Your task to perform on an android device: Open location settings Image 0: 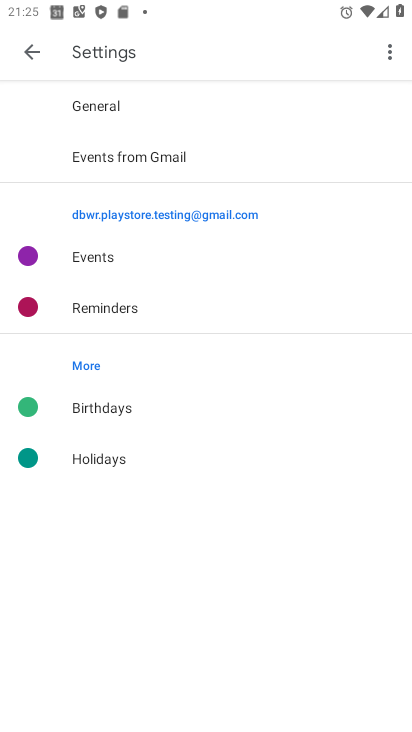
Step 0: press home button
Your task to perform on an android device: Open location settings Image 1: 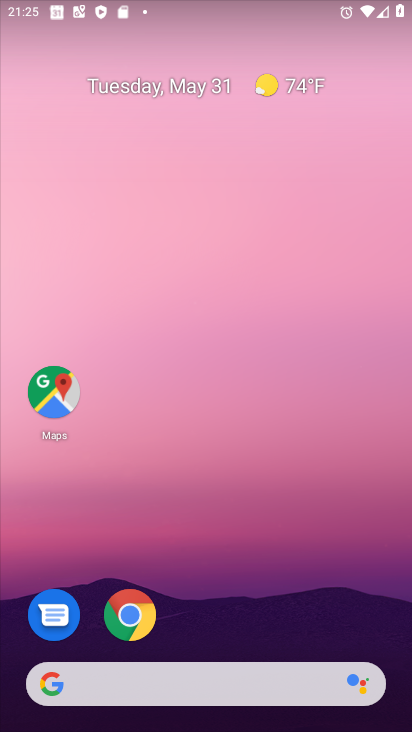
Step 1: drag from (218, 628) to (228, 248)
Your task to perform on an android device: Open location settings Image 2: 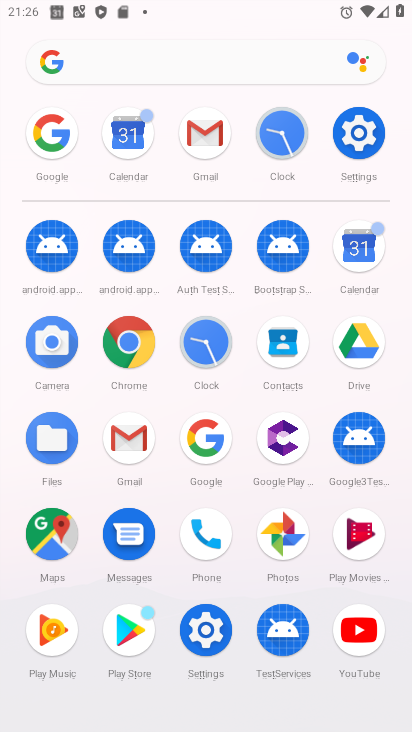
Step 2: click (342, 110)
Your task to perform on an android device: Open location settings Image 3: 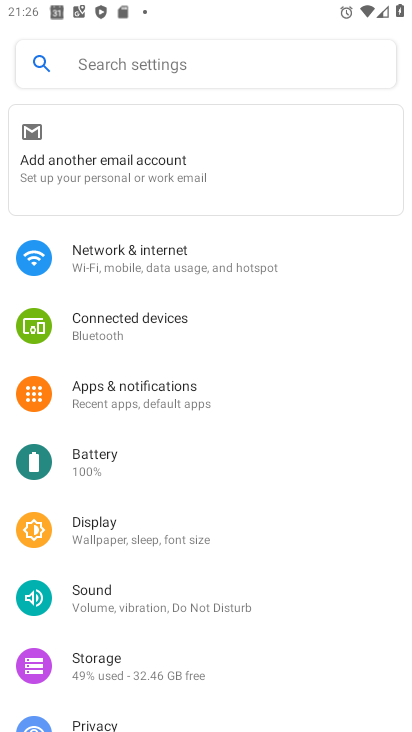
Step 3: drag from (205, 705) to (234, 296)
Your task to perform on an android device: Open location settings Image 4: 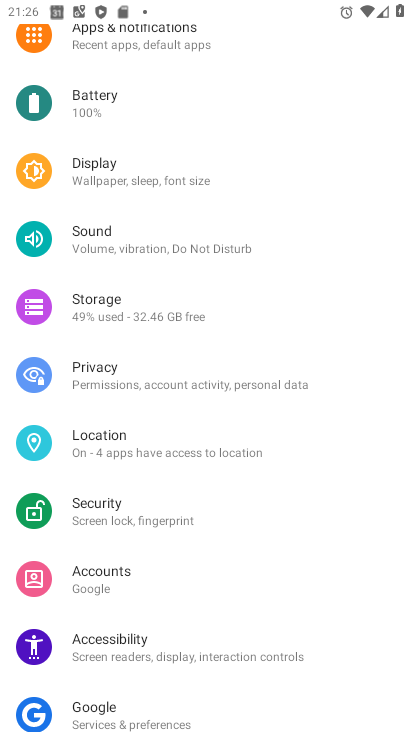
Step 4: drag from (213, 570) to (247, 387)
Your task to perform on an android device: Open location settings Image 5: 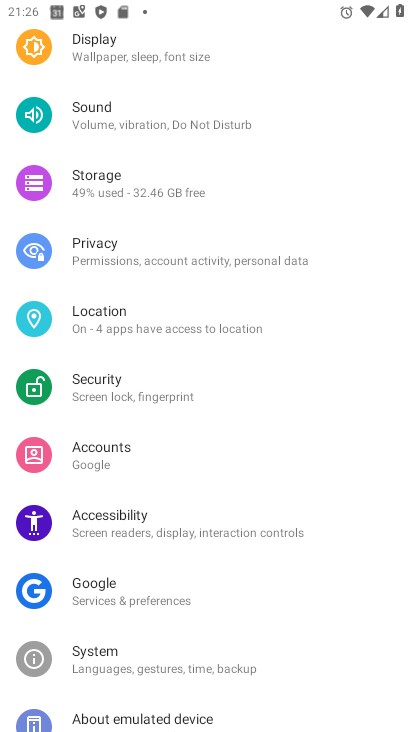
Step 5: click (151, 316)
Your task to perform on an android device: Open location settings Image 6: 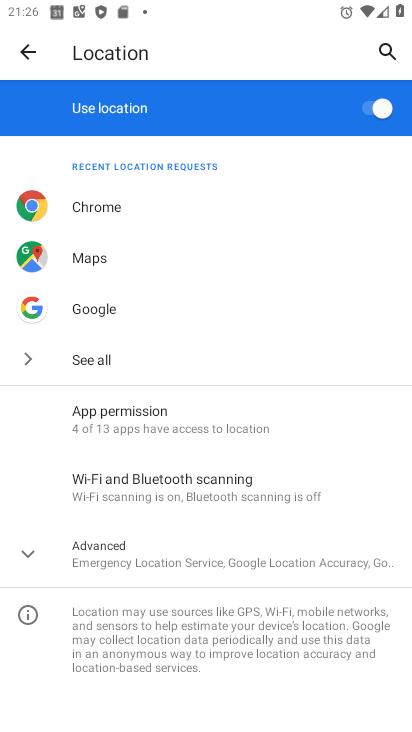
Step 6: task complete